Your task to perform on an android device: Open my contact list Image 0: 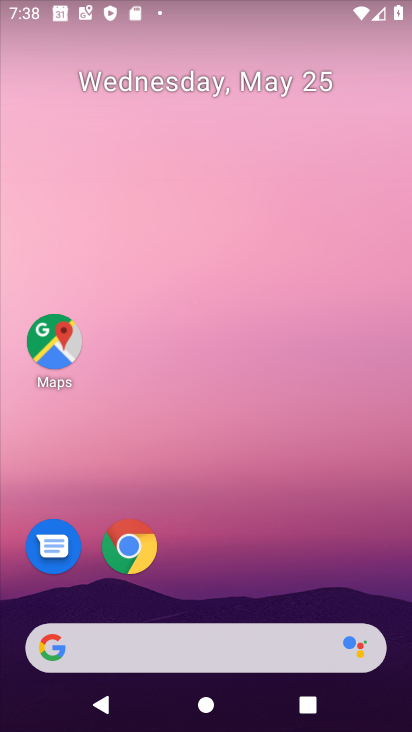
Step 0: drag from (202, 640) to (328, 138)
Your task to perform on an android device: Open my contact list Image 1: 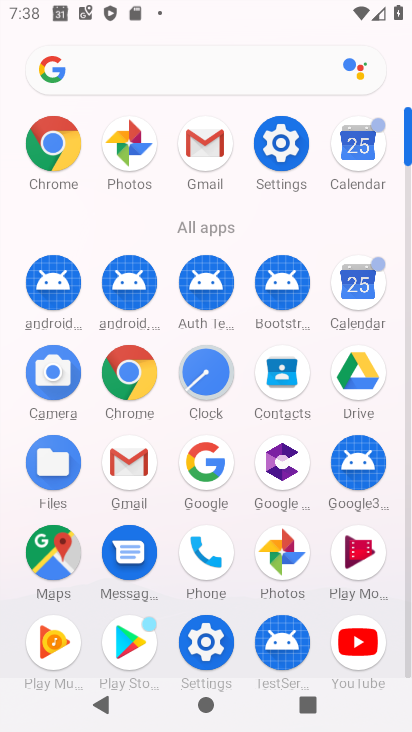
Step 1: click (277, 378)
Your task to perform on an android device: Open my contact list Image 2: 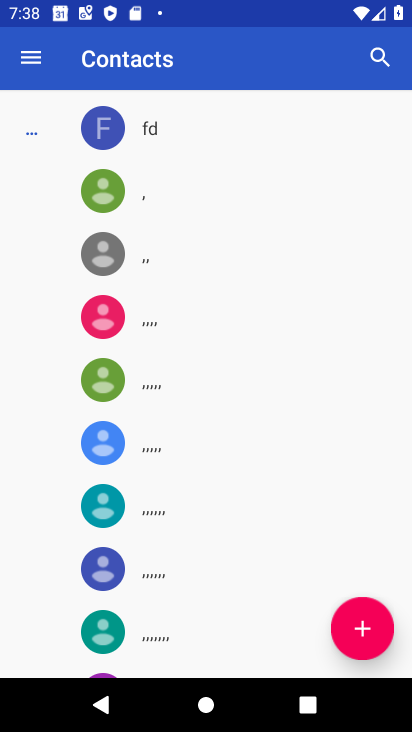
Step 2: task complete